Your task to perform on an android device: Open Maps and search for coffee Image 0: 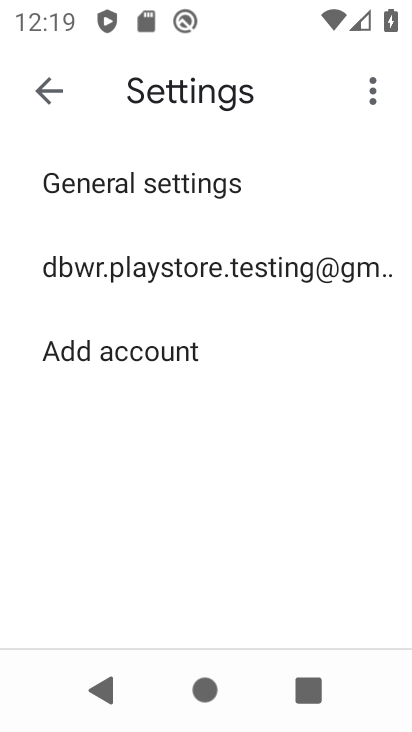
Step 0: press home button
Your task to perform on an android device: Open Maps and search for coffee Image 1: 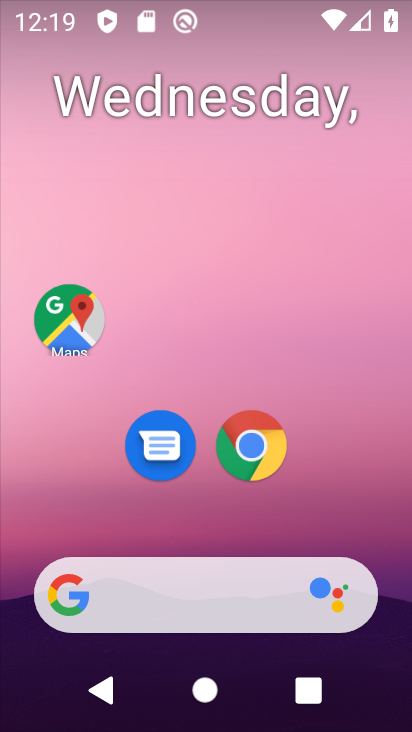
Step 1: click (72, 307)
Your task to perform on an android device: Open Maps and search for coffee Image 2: 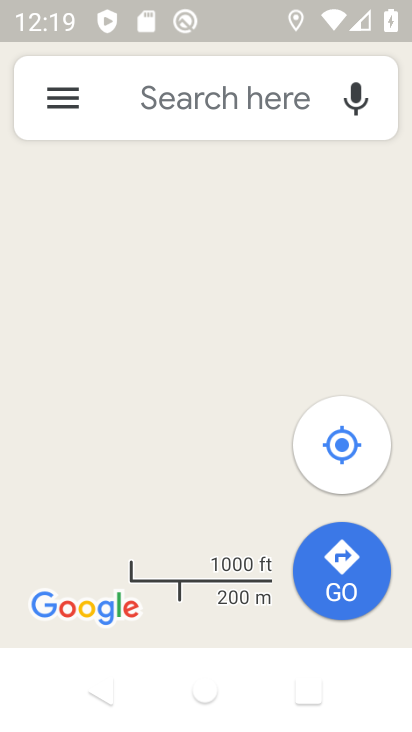
Step 2: click (208, 84)
Your task to perform on an android device: Open Maps and search for coffee Image 3: 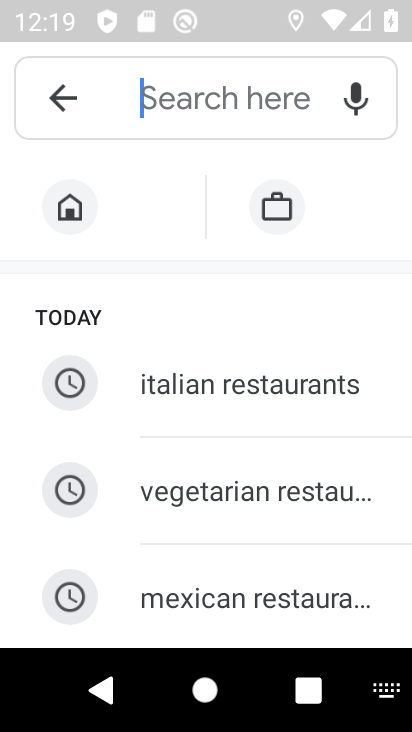
Step 3: type "coffee"
Your task to perform on an android device: Open Maps and search for coffee Image 4: 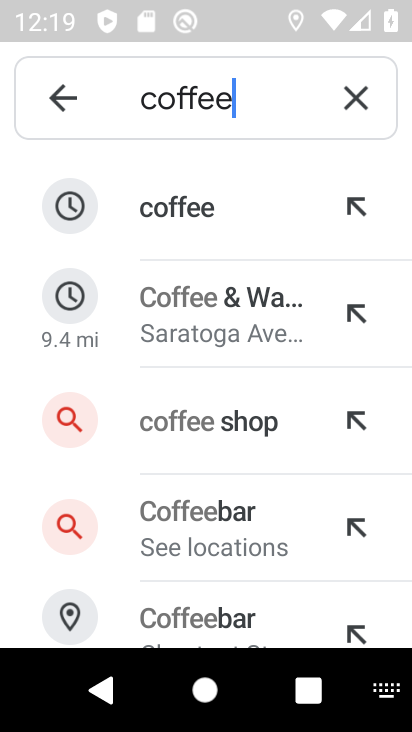
Step 4: click (200, 197)
Your task to perform on an android device: Open Maps and search for coffee Image 5: 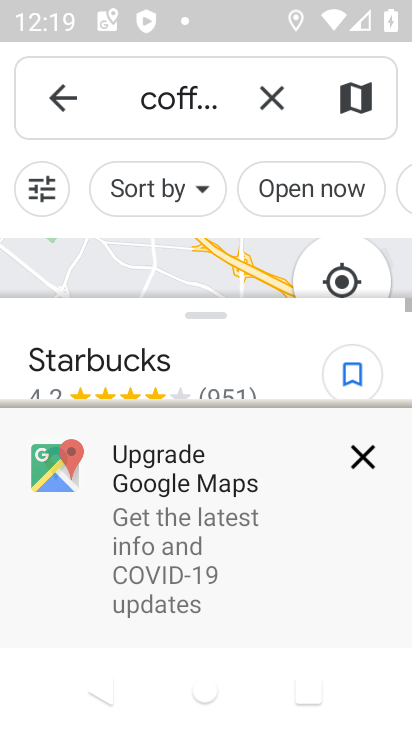
Step 5: task complete